Your task to perform on an android device: Open the map Image 0: 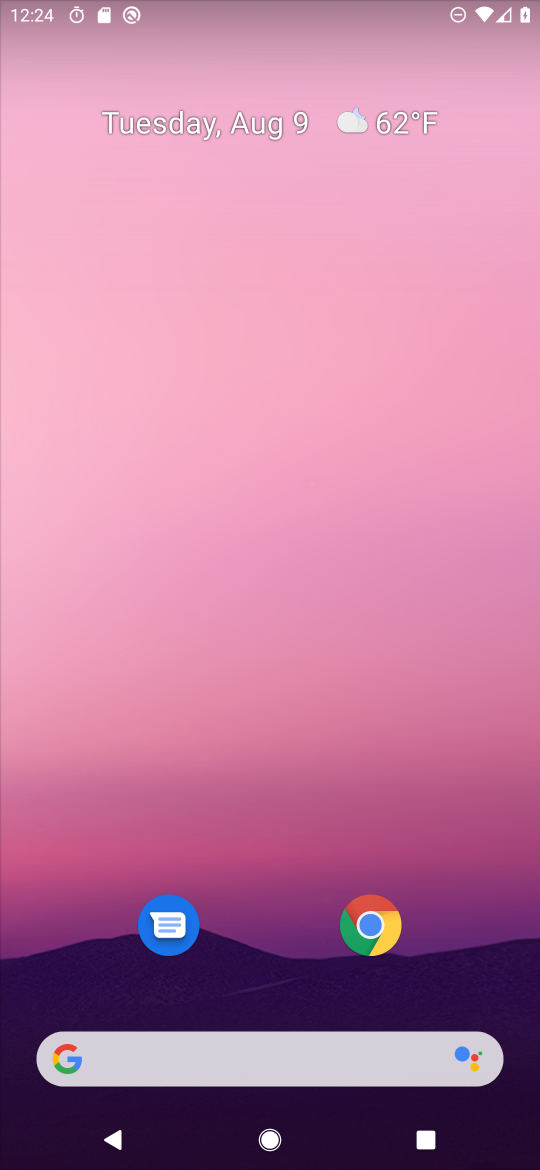
Step 0: drag from (252, 943) to (369, 122)
Your task to perform on an android device: Open the map Image 1: 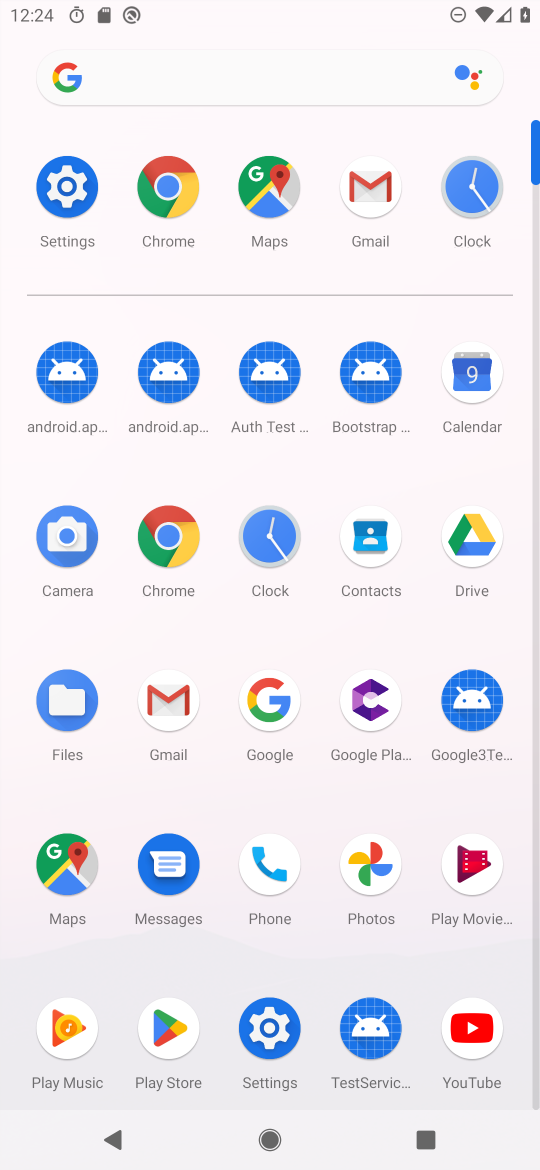
Step 1: click (64, 864)
Your task to perform on an android device: Open the map Image 2: 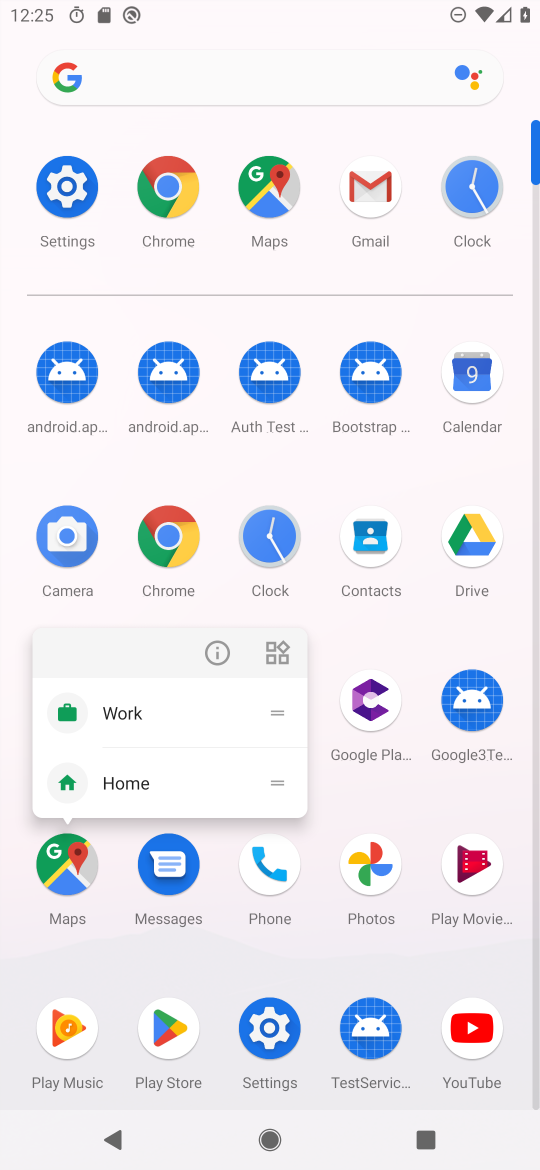
Step 2: click (64, 869)
Your task to perform on an android device: Open the map Image 3: 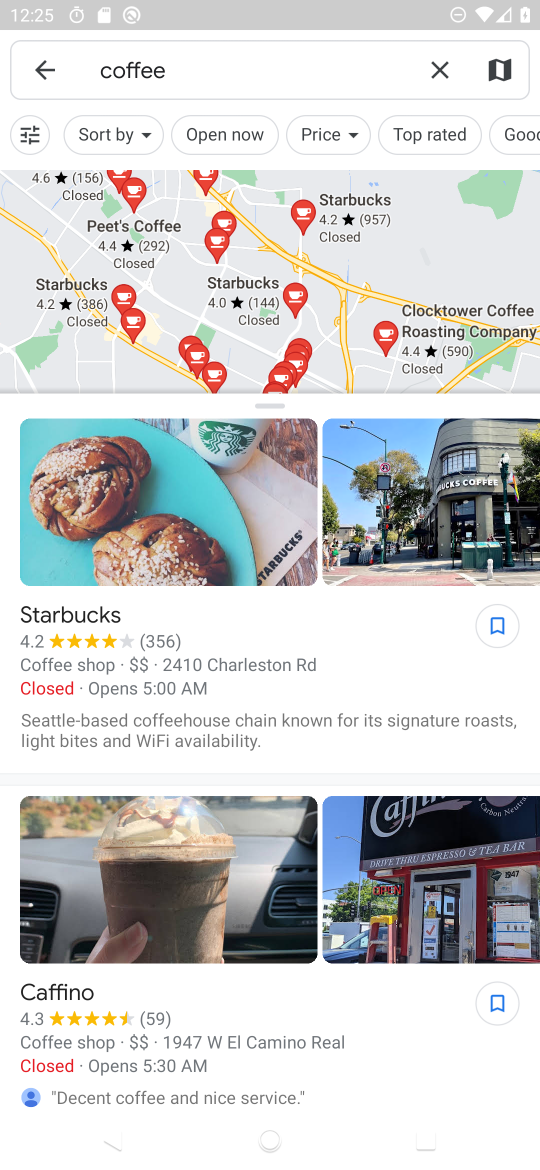
Step 3: task complete